Your task to perform on an android device: Open network settings Image 0: 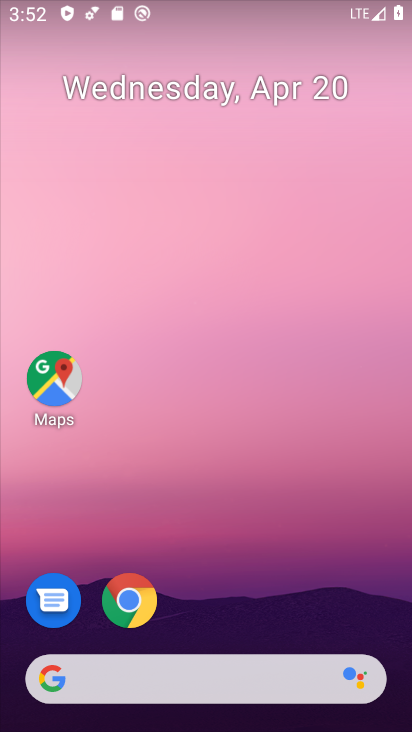
Step 0: drag from (282, 598) to (263, 138)
Your task to perform on an android device: Open network settings Image 1: 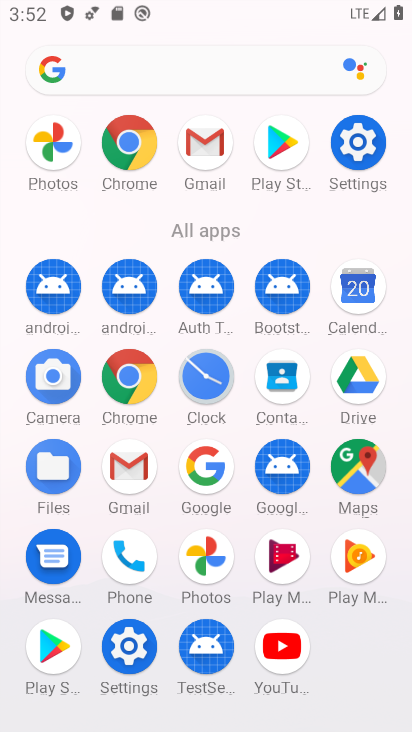
Step 1: click (140, 659)
Your task to perform on an android device: Open network settings Image 2: 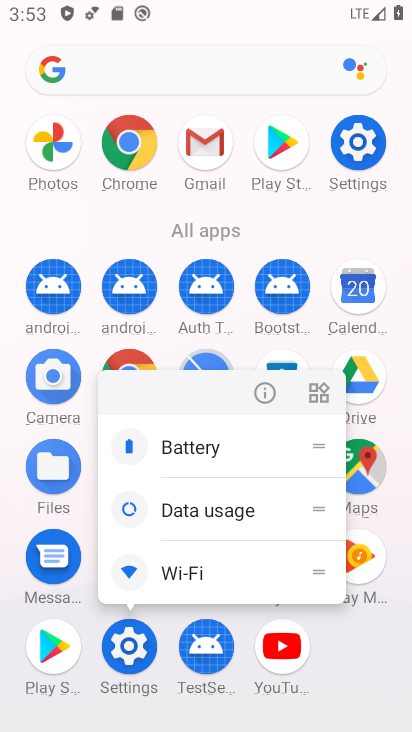
Step 2: click (137, 654)
Your task to perform on an android device: Open network settings Image 3: 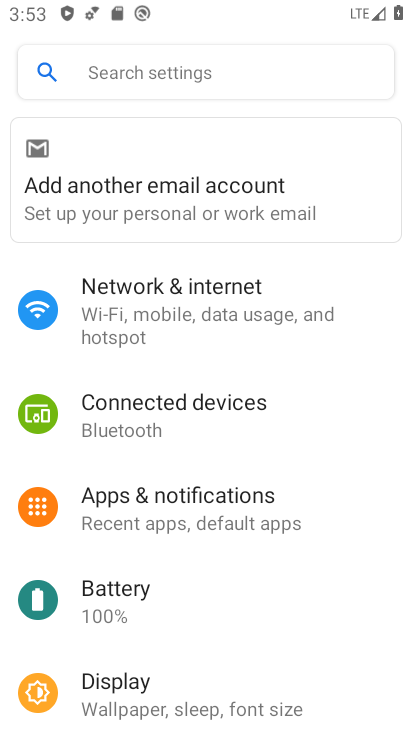
Step 3: click (176, 310)
Your task to perform on an android device: Open network settings Image 4: 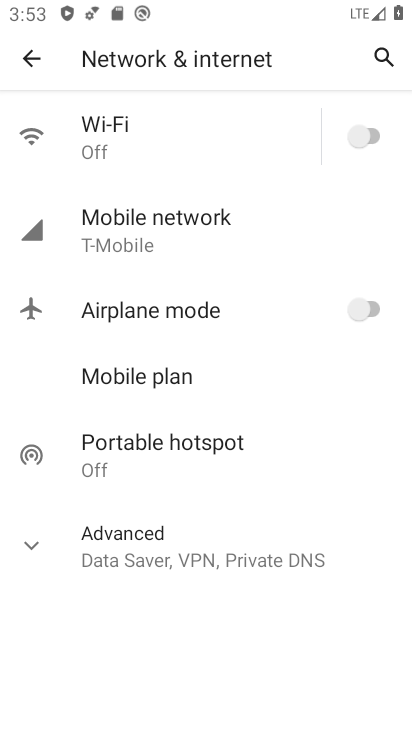
Step 4: task complete